Your task to perform on an android device: Open Wikipedia Image 0: 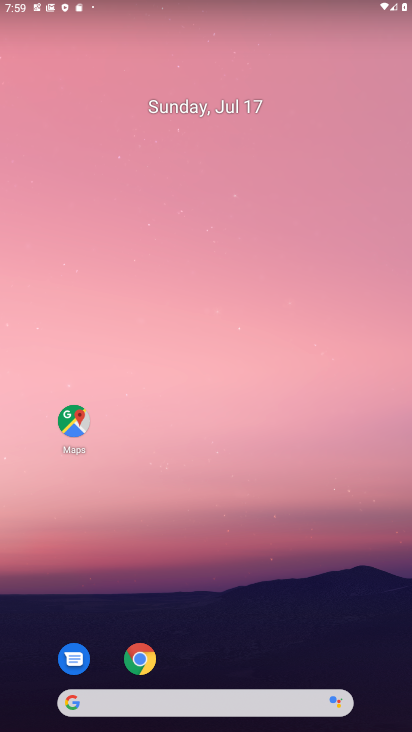
Step 0: click (128, 649)
Your task to perform on an android device: Open Wikipedia Image 1: 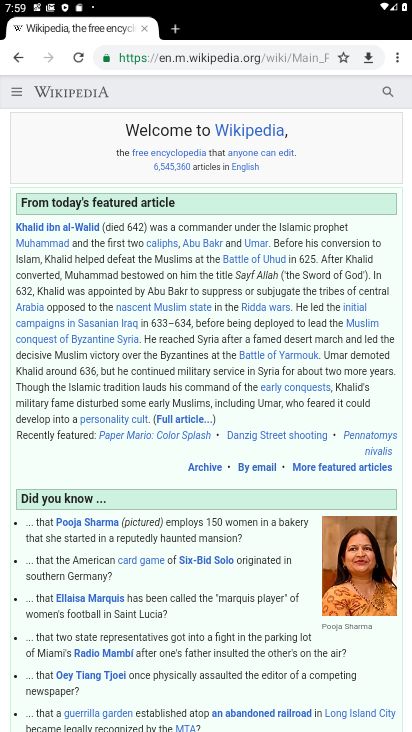
Step 1: task complete